Your task to perform on an android device: delete a single message in the gmail app Image 0: 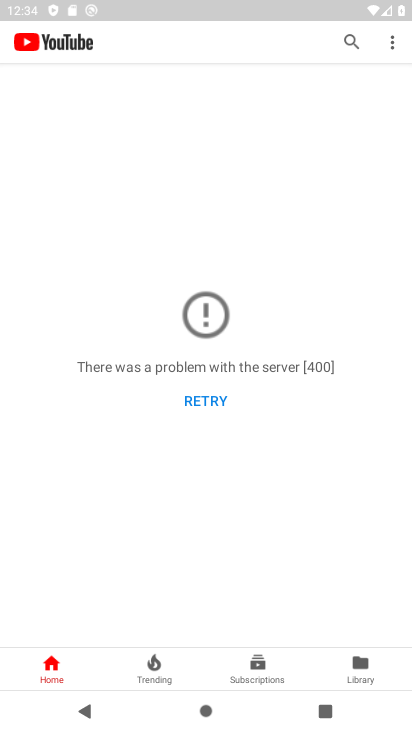
Step 0: press home button
Your task to perform on an android device: delete a single message in the gmail app Image 1: 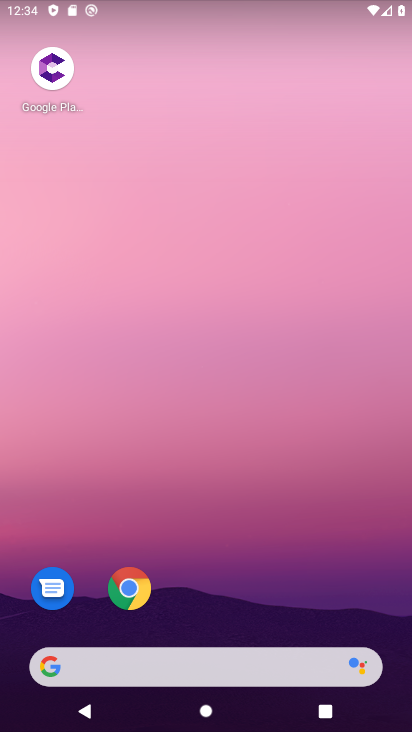
Step 1: drag from (290, 588) to (271, 138)
Your task to perform on an android device: delete a single message in the gmail app Image 2: 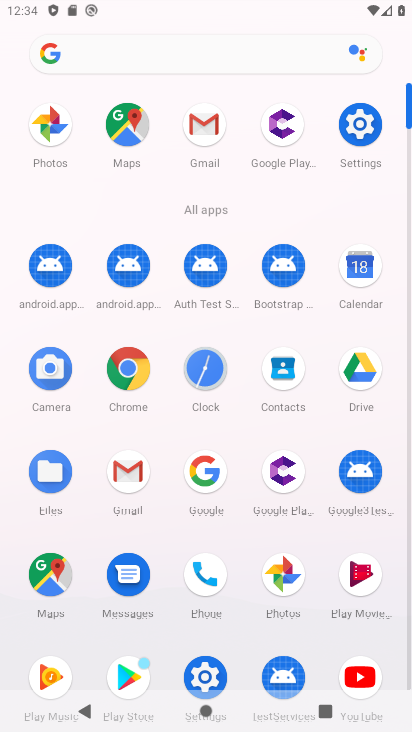
Step 2: click (193, 137)
Your task to perform on an android device: delete a single message in the gmail app Image 3: 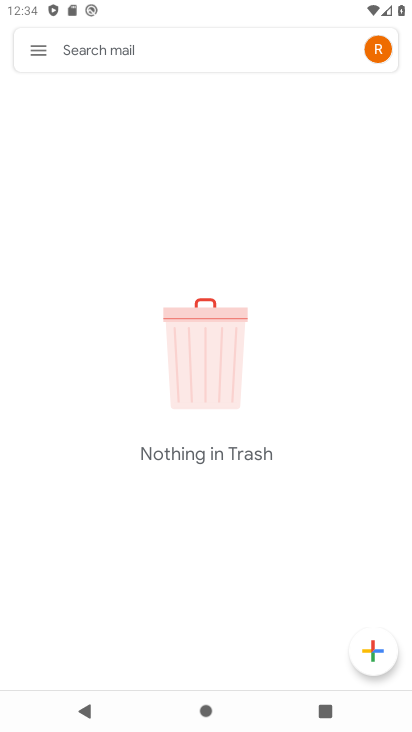
Step 3: click (39, 51)
Your task to perform on an android device: delete a single message in the gmail app Image 4: 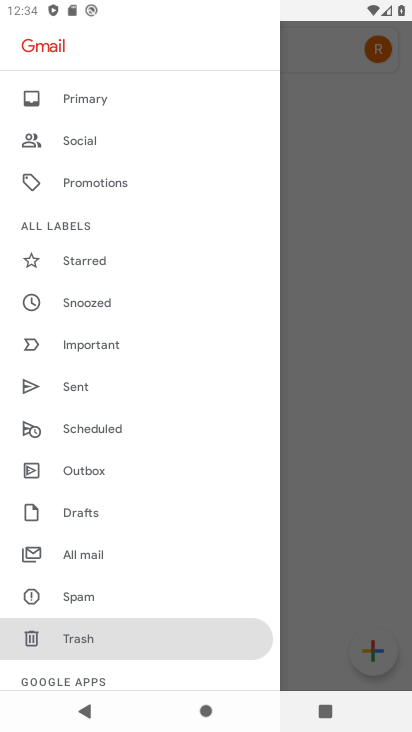
Step 4: click (76, 547)
Your task to perform on an android device: delete a single message in the gmail app Image 5: 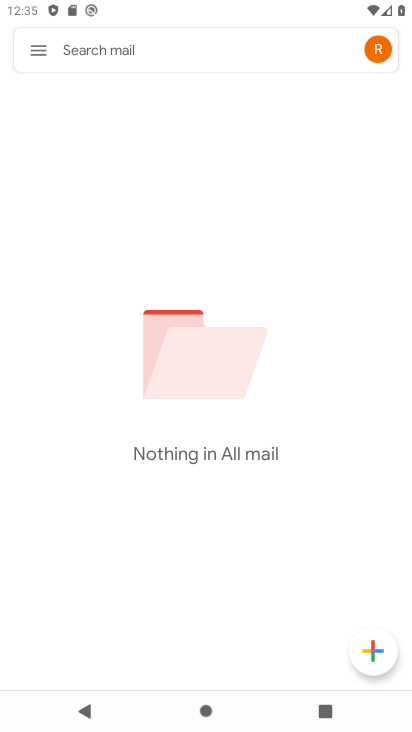
Step 5: task complete